Your task to perform on an android device: turn on notifications settings in the gmail app Image 0: 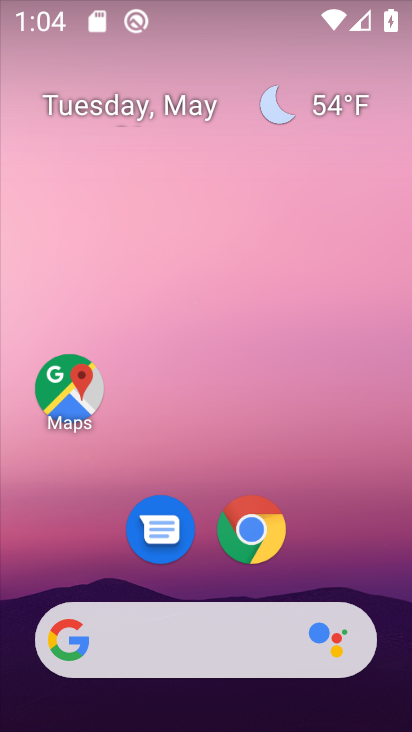
Step 0: drag from (300, 550) to (302, 237)
Your task to perform on an android device: turn on notifications settings in the gmail app Image 1: 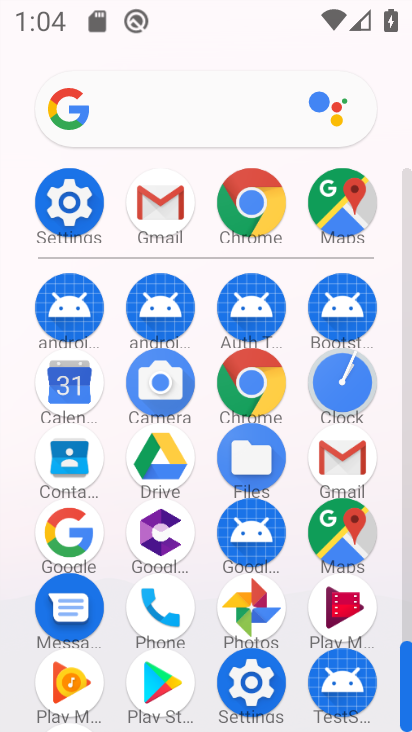
Step 1: click (334, 461)
Your task to perform on an android device: turn on notifications settings in the gmail app Image 2: 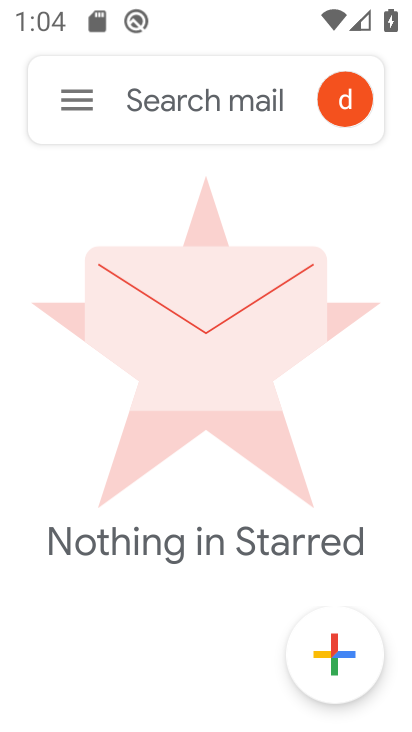
Step 2: click (81, 100)
Your task to perform on an android device: turn on notifications settings in the gmail app Image 3: 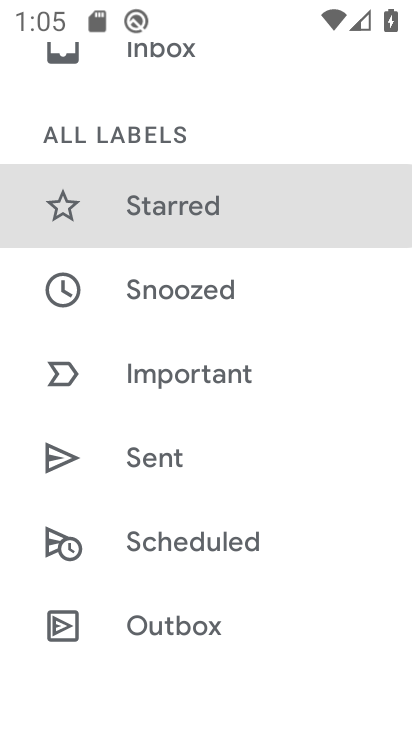
Step 3: drag from (218, 147) to (267, 123)
Your task to perform on an android device: turn on notifications settings in the gmail app Image 4: 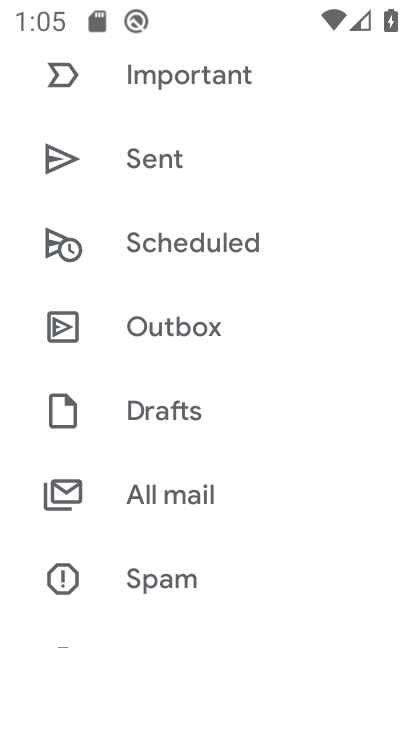
Step 4: drag from (209, 536) to (243, 132)
Your task to perform on an android device: turn on notifications settings in the gmail app Image 5: 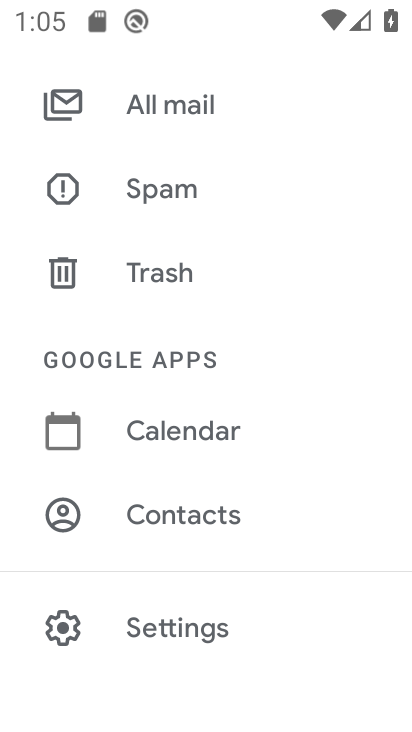
Step 5: drag from (270, 491) to (267, 106)
Your task to perform on an android device: turn on notifications settings in the gmail app Image 6: 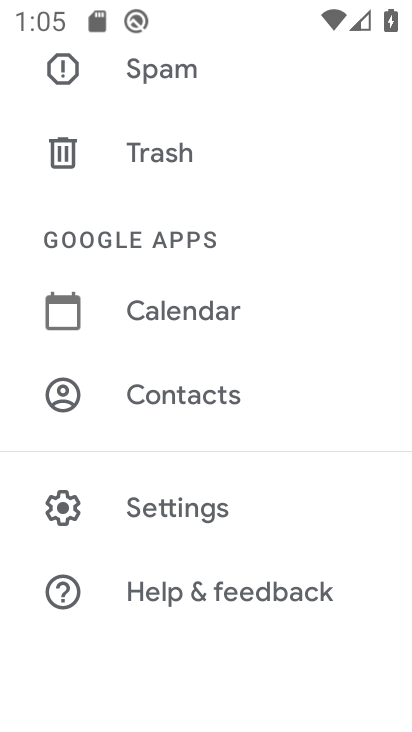
Step 6: click (188, 497)
Your task to perform on an android device: turn on notifications settings in the gmail app Image 7: 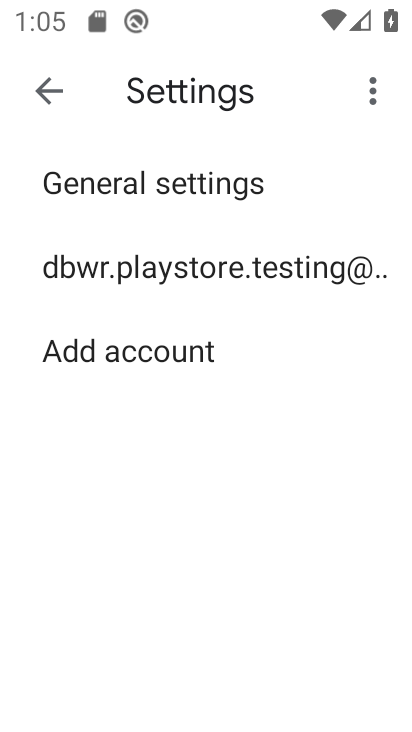
Step 7: click (229, 258)
Your task to perform on an android device: turn on notifications settings in the gmail app Image 8: 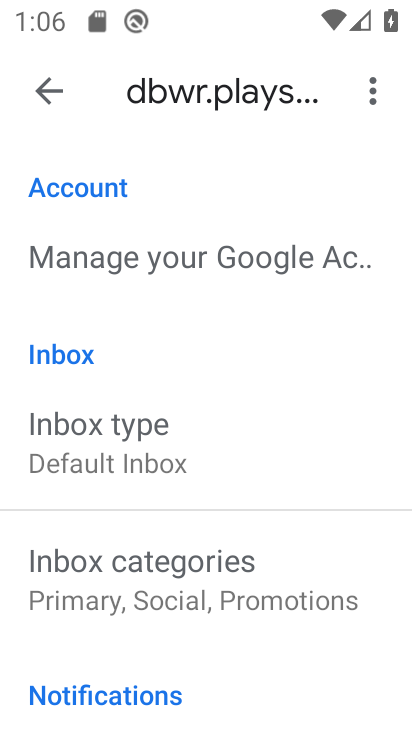
Step 8: task complete